Your task to perform on an android device: Go to display settings Image 0: 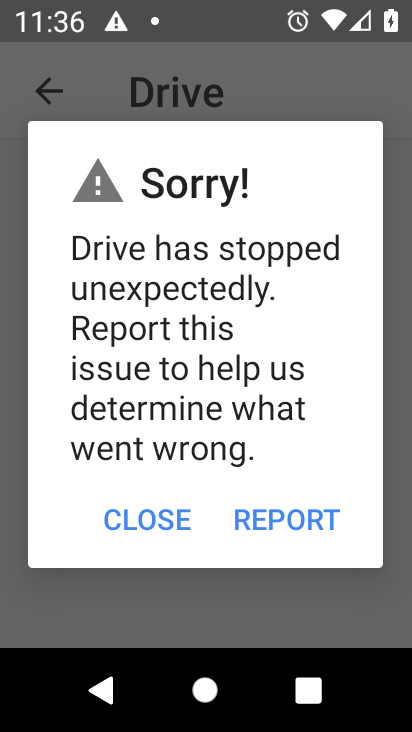
Step 0: press back button
Your task to perform on an android device: Go to display settings Image 1: 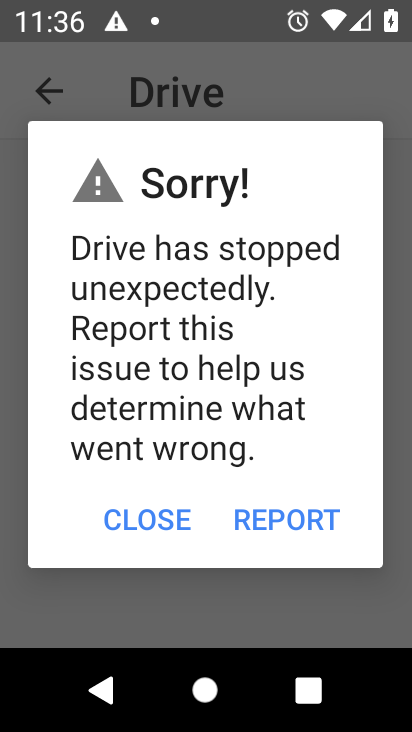
Step 1: press back button
Your task to perform on an android device: Go to display settings Image 2: 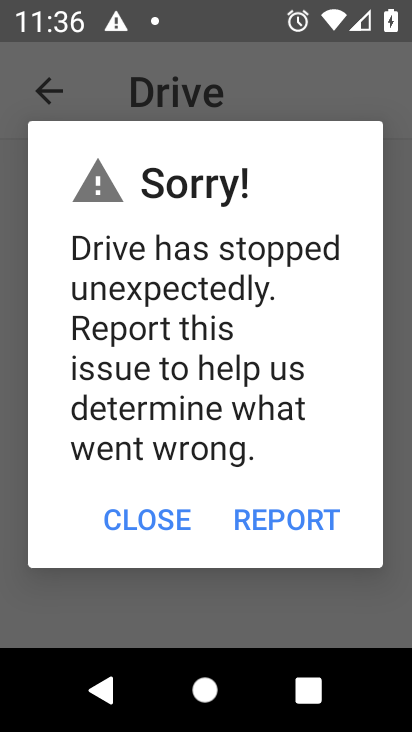
Step 2: click (116, 521)
Your task to perform on an android device: Go to display settings Image 3: 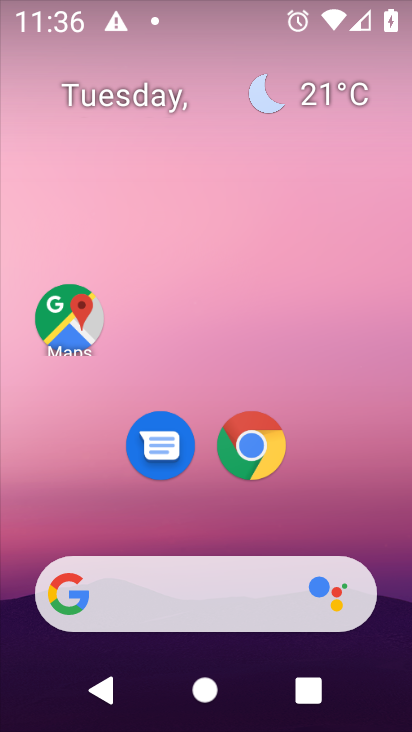
Step 3: drag from (216, 497) to (364, 7)
Your task to perform on an android device: Go to display settings Image 4: 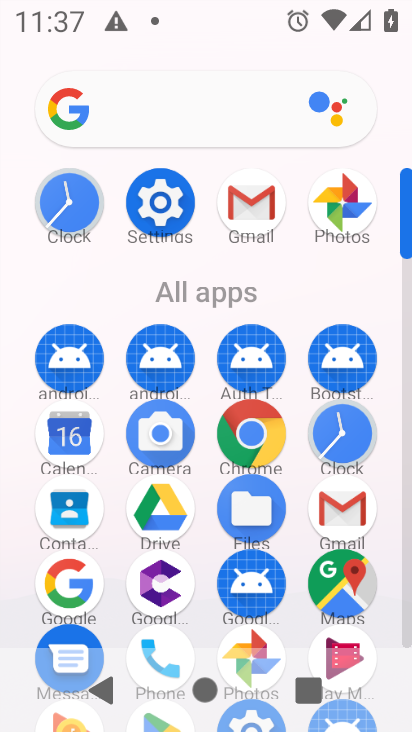
Step 4: click (167, 211)
Your task to perform on an android device: Go to display settings Image 5: 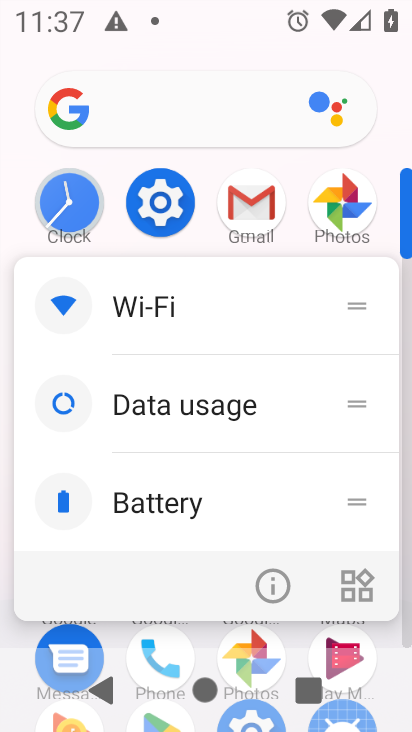
Step 5: click (176, 199)
Your task to perform on an android device: Go to display settings Image 6: 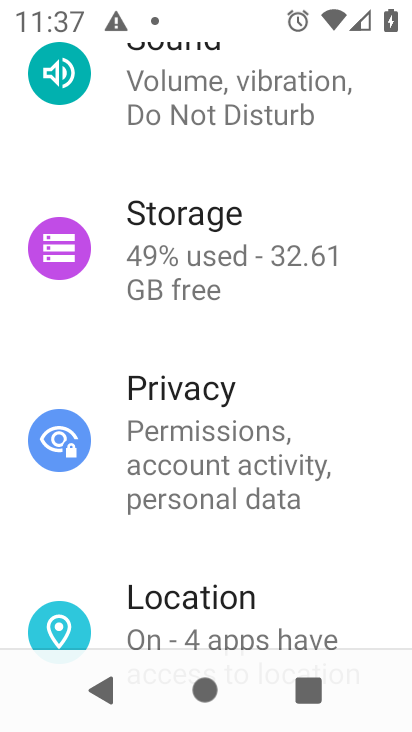
Step 6: drag from (279, 229) to (187, 694)
Your task to perform on an android device: Go to display settings Image 7: 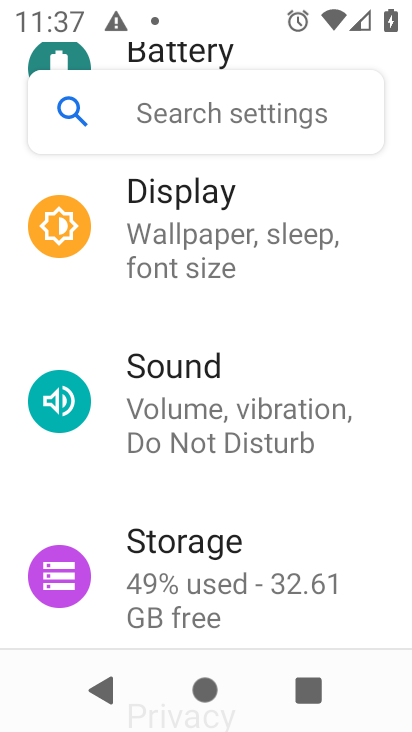
Step 7: click (187, 242)
Your task to perform on an android device: Go to display settings Image 8: 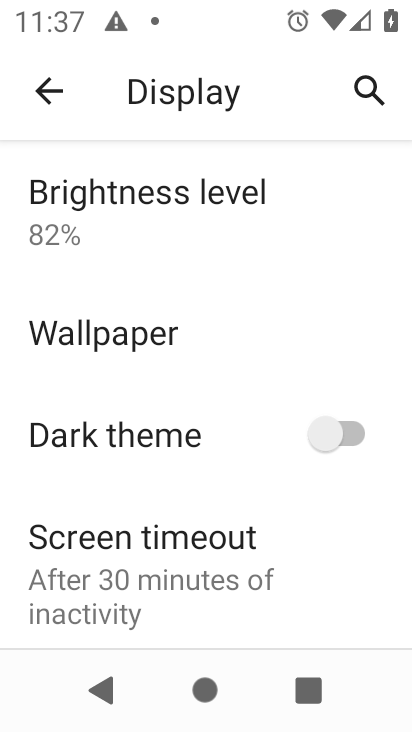
Step 8: drag from (165, 533) to (243, 123)
Your task to perform on an android device: Go to display settings Image 9: 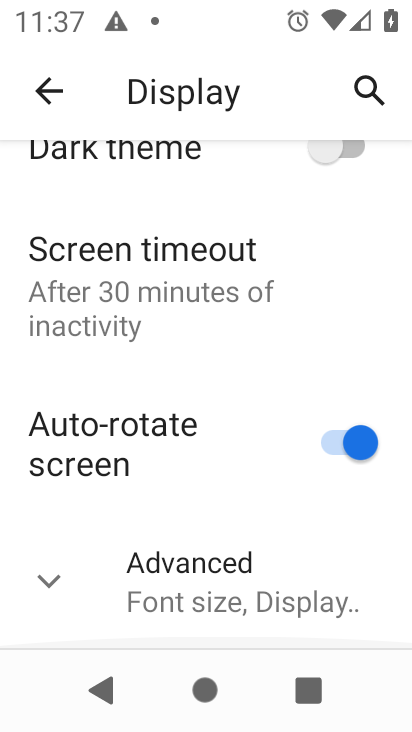
Step 9: click (169, 599)
Your task to perform on an android device: Go to display settings Image 10: 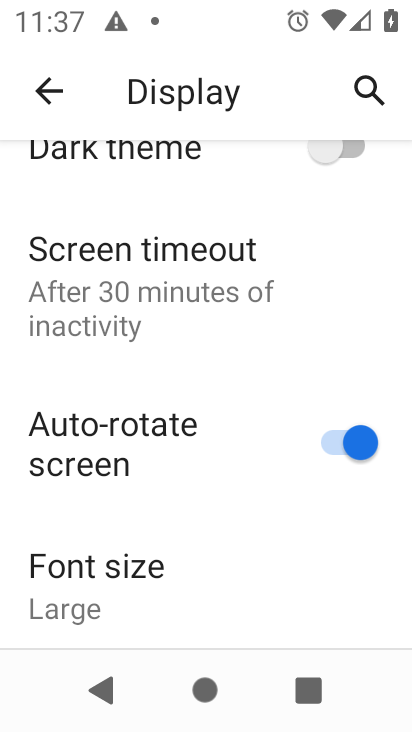
Step 10: click (143, 587)
Your task to perform on an android device: Go to display settings Image 11: 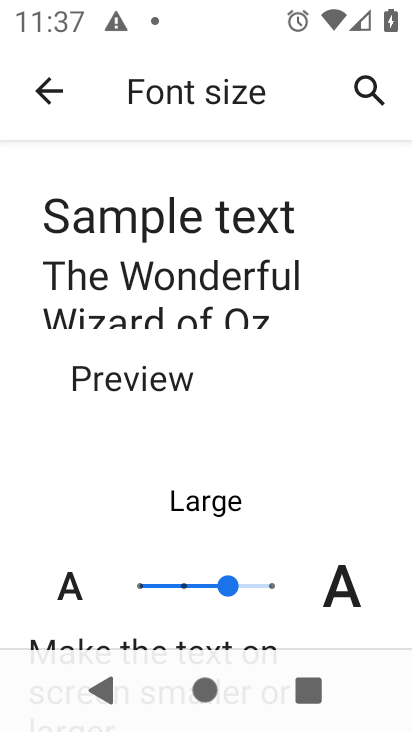
Step 11: click (186, 589)
Your task to perform on an android device: Go to display settings Image 12: 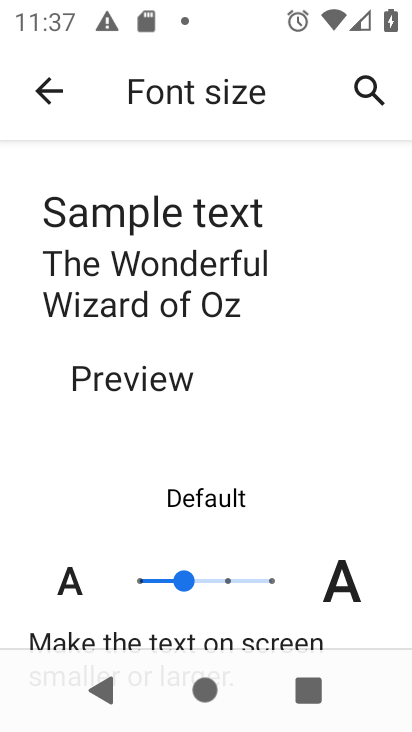
Step 12: press back button
Your task to perform on an android device: Go to display settings Image 13: 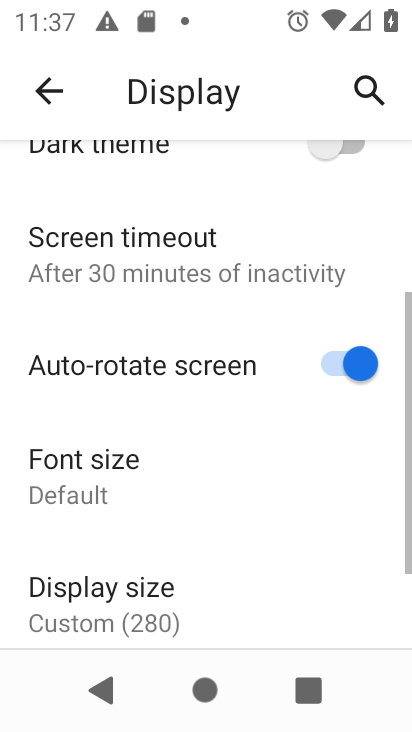
Step 13: drag from (215, 574) to (277, 220)
Your task to perform on an android device: Go to display settings Image 14: 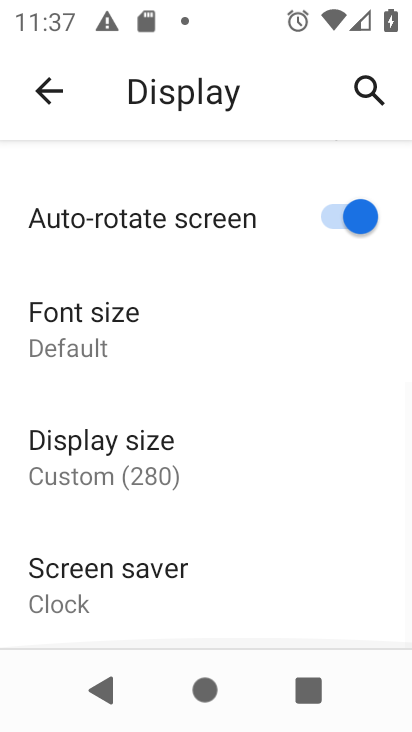
Step 14: click (118, 430)
Your task to perform on an android device: Go to display settings Image 15: 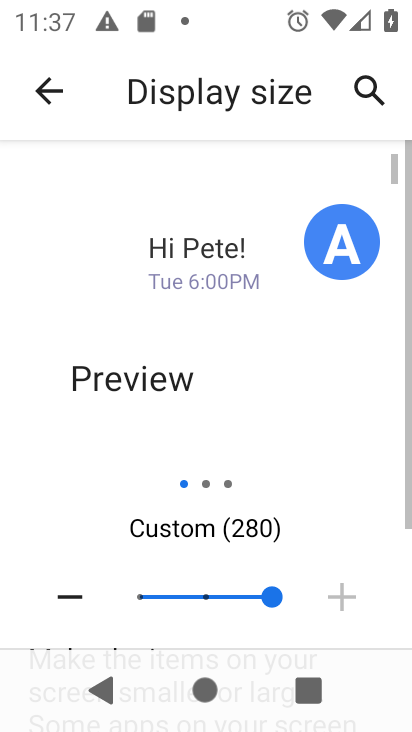
Step 15: click (205, 594)
Your task to perform on an android device: Go to display settings Image 16: 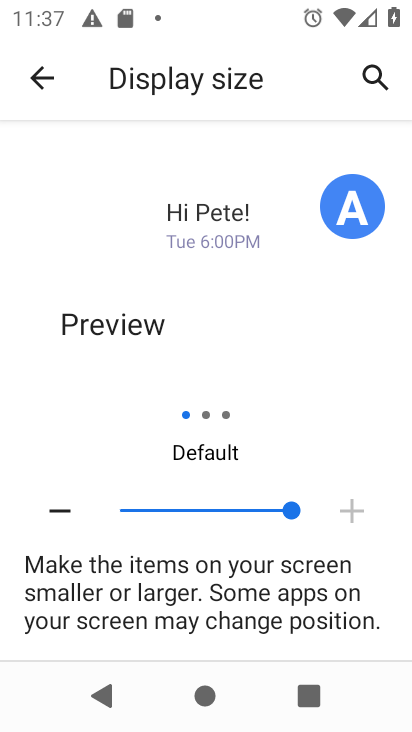
Step 16: task complete